Your task to perform on an android device: set the stopwatch Image 0: 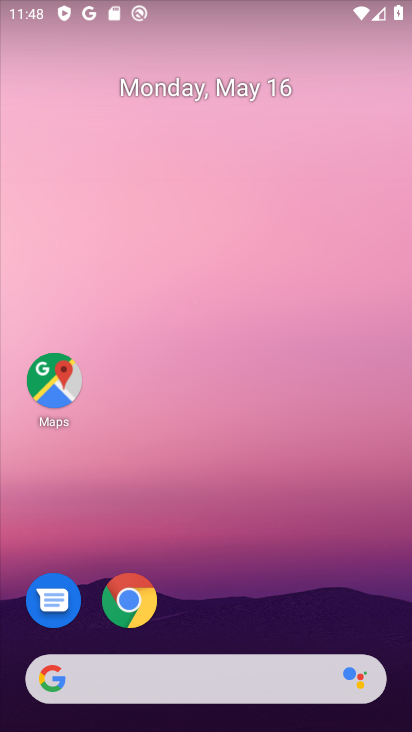
Step 0: drag from (239, 512) to (156, 97)
Your task to perform on an android device: set the stopwatch Image 1: 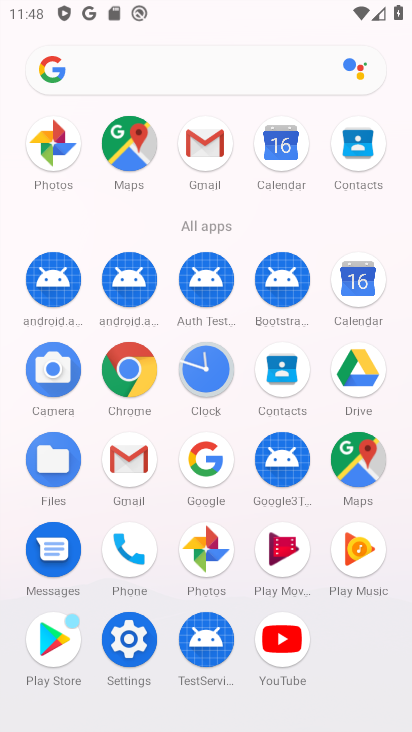
Step 1: click (194, 372)
Your task to perform on an android device: set the stopwatch Image 2: 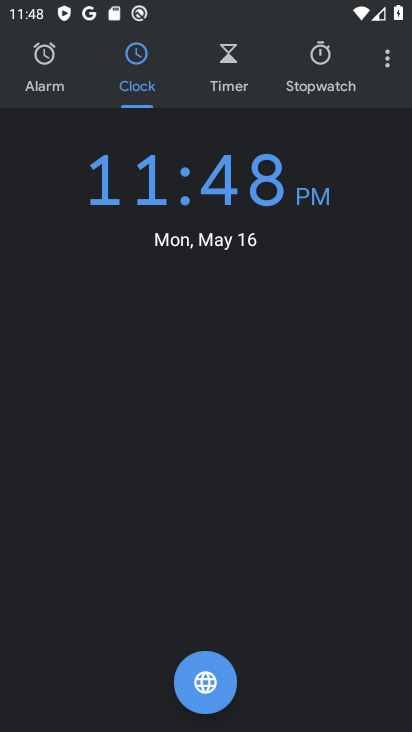
Step 2: click (318, 73)
Your task to perform on an android device: set the stopwatch Image 3: 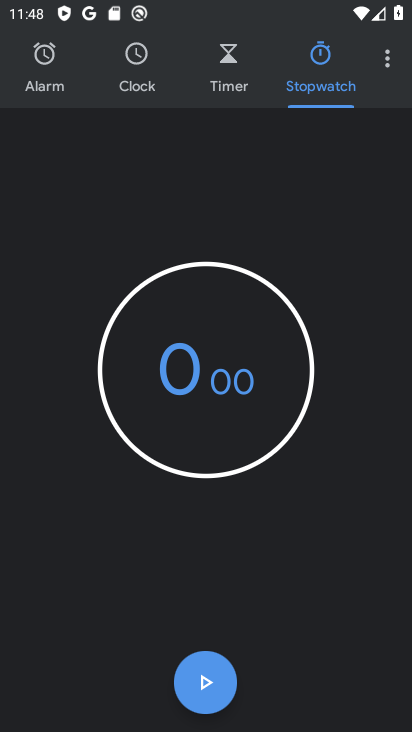
Step 3: click (208, 693)
Your task to perform on an android device: set the stopwatch Image 4: 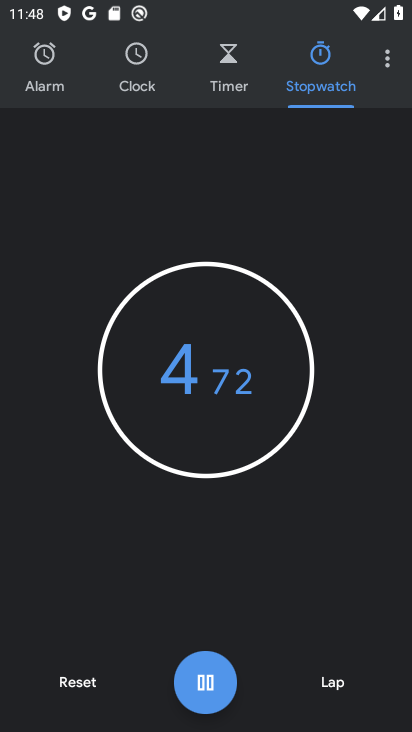
Step 4: task complete